Your task to perform on an android device: open chrome and create a bookmark for the current page Image 0: 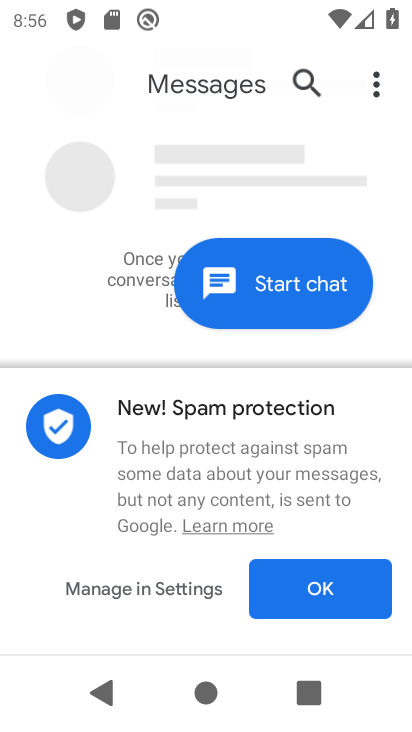
Step 0: press home button
Your task to perform on an android device: open chrome and create a bookmark for the current page Image 1: 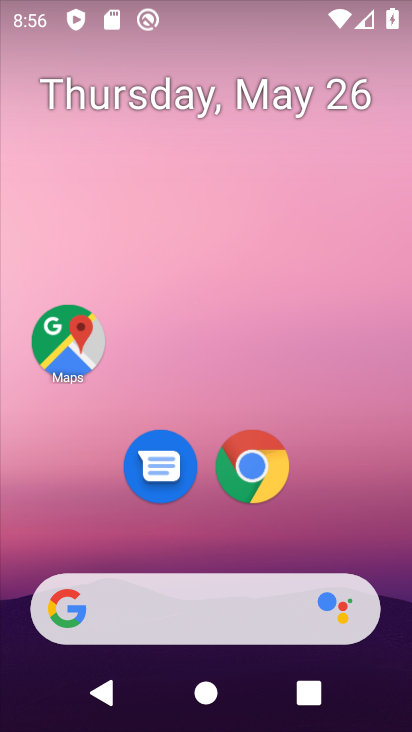
Step 1: click (257, 460)
Your task to perform on an android device: open chrome and create a bookmark for the current page Image 2: 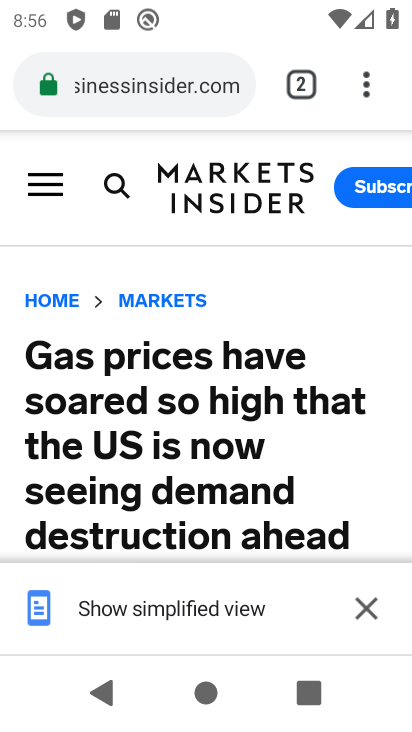
Step 2: click (364, 80)
Your task to perform on an android device: open chrome and create a bookmark for the current page Image 3: 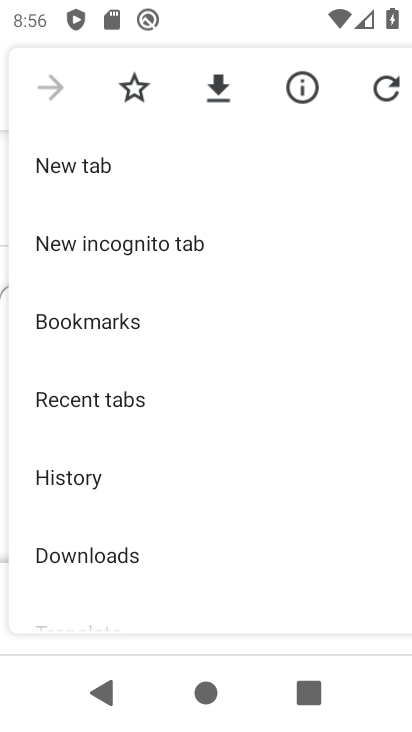
Step 3: click (135, 91)
Your task to perform on an android device: open chrome and create a bookmark for the current page Image 4: 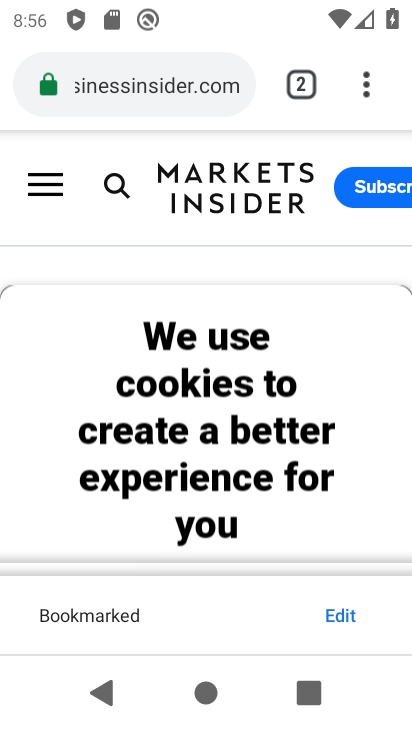
Step 4: task complete